Your task to perform on an android device: Open calendar and show me the first week of next month Image 0: 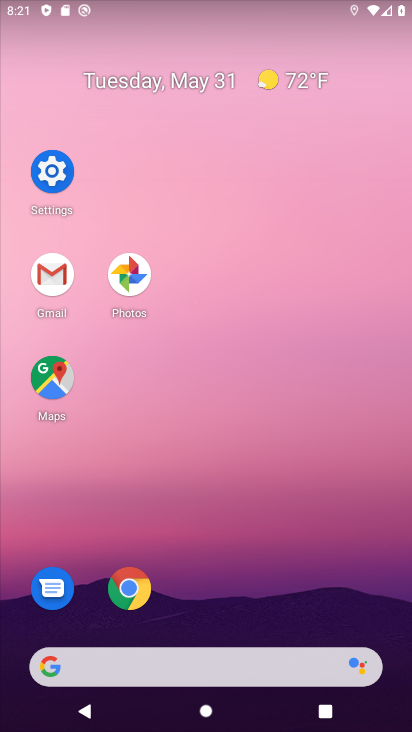
Step 0: drag from (216, 607) to (286, 253)
Your task to perform on an android device: Open calendar and show me the first week of next month Image 1: 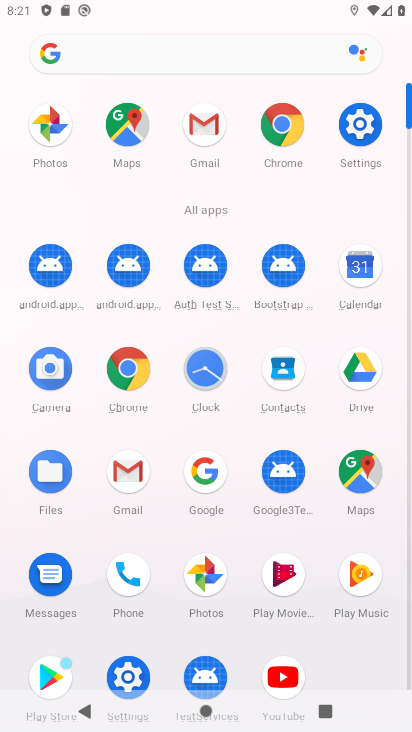
Step 1: drag from (357, 263) to (135, 189)
Your task to perform on an android device: Open calendar and show me the first week of next month Image 2: 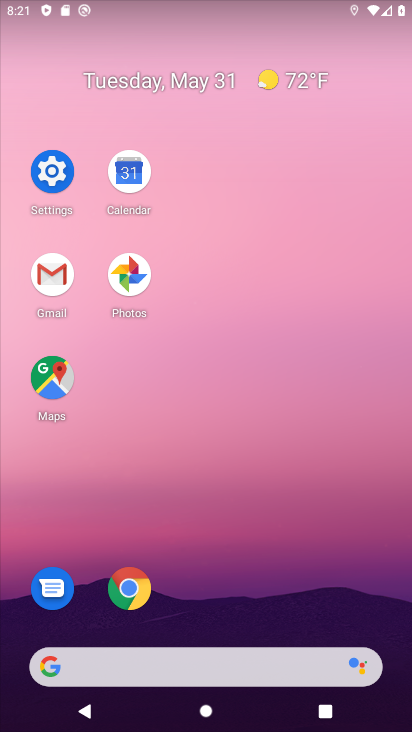
Step 2: click (137, 177)
Your task to perform on an android device: Open calendar and show me the first week of next month Image 3: 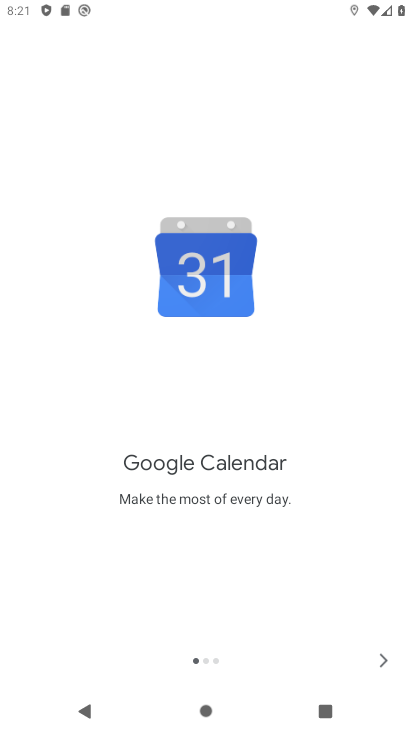
Step 3: click (378, 665)
Your task to perform on an android device: Open calendar and show me the first week of next month Image 4: 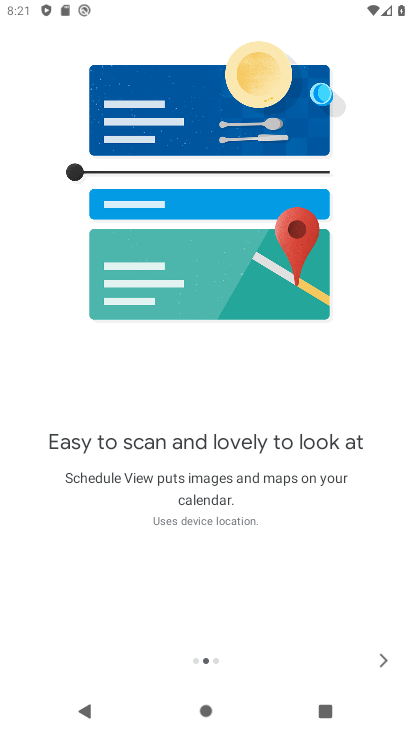
Step 4: click (382, 656)
Your task to perform on an android device: Open calendar and show me the first week of next month Image 5: 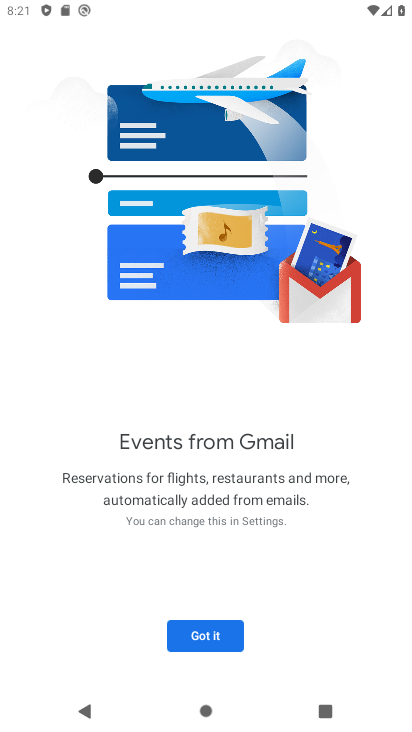
Step 5: click (387, 655)
Your task to perform on an android device: Open calendar and show me the first week of next month Image 6: 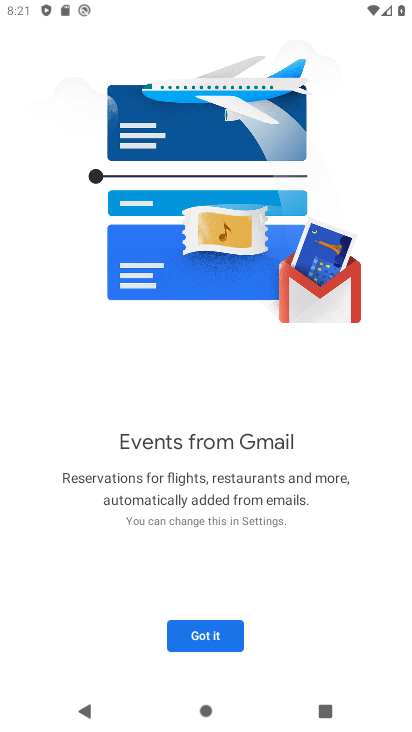
Step 6: click (240, 637)
Your task to perform on an android device: Open calendar and show me the first week of next month Image 7: 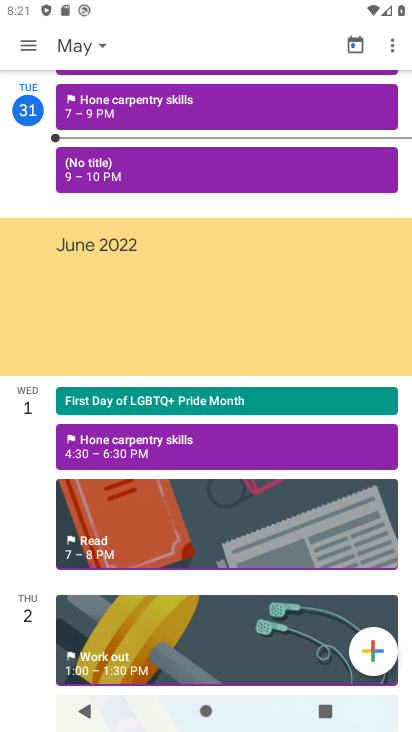
Step 7: click (82, 51)
Your task to perform on an android device: Open calendar and show me the first week of next month Image 8: 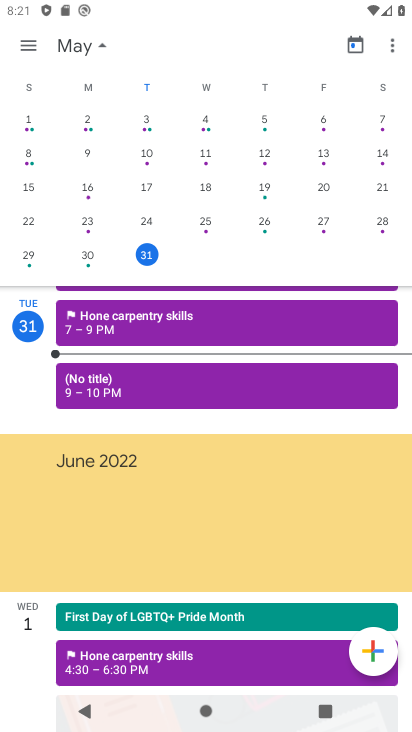
Step 8: drag from (361, 178) to (5, 112)
Your task to perform on an android device: Open calendar and show me the first week of next month Image 9: 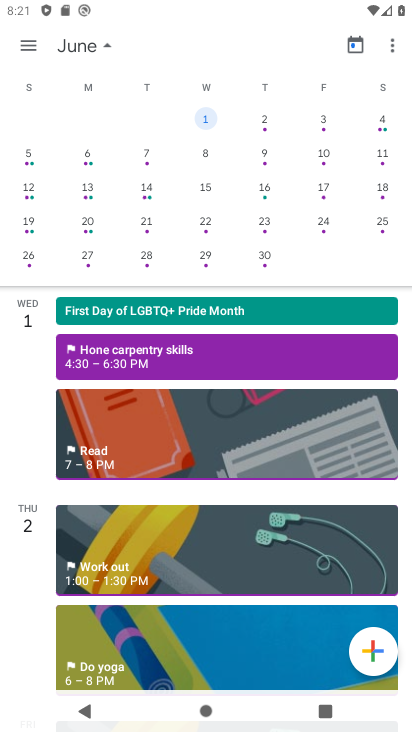
Step 9: click (29, 46)
Your task to perform on an android device: Open calendar and show me the first week of next month Image 10: 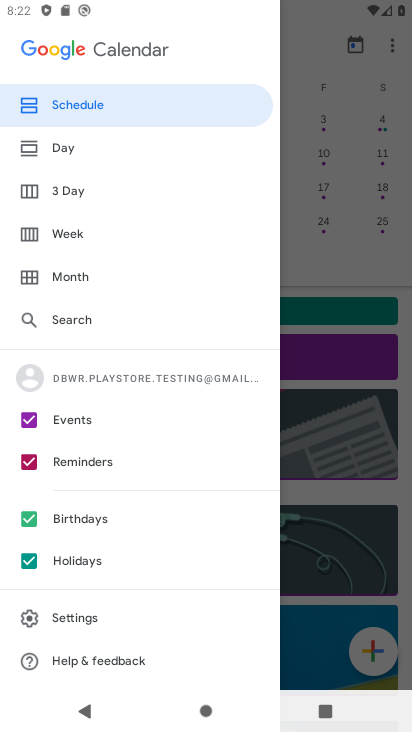
Step 10: click (96, 277)
Your task to perform on an android device: Open calendar and show me the first week of next month Image 11: 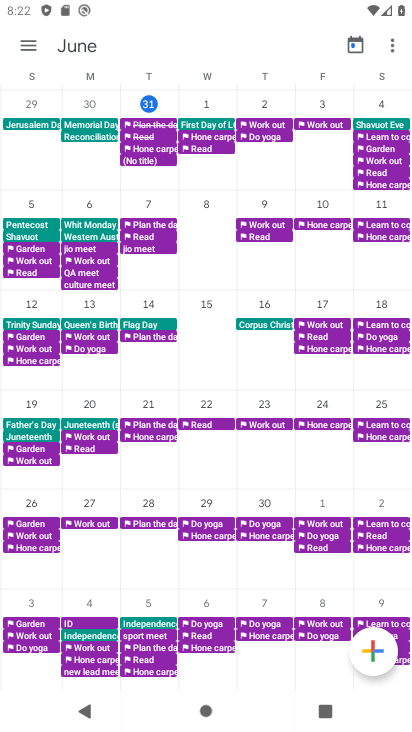
Step 11: click (45, 42)
Your task to perform on an android device: Open calendar and show me the first week of next month Image 12: 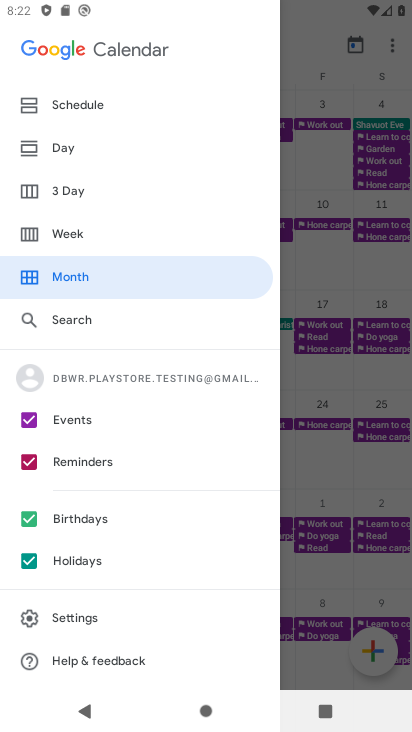
Step 12: click (114, 225)
Your task to perform on an android device: Open calendar and show me the first week of next month Image 13: 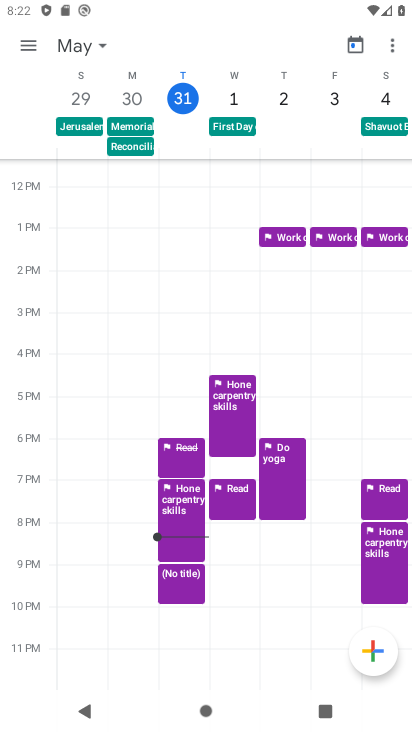
Step 13: task complete